Your task to perform on an android device: check out phone information Image 0: 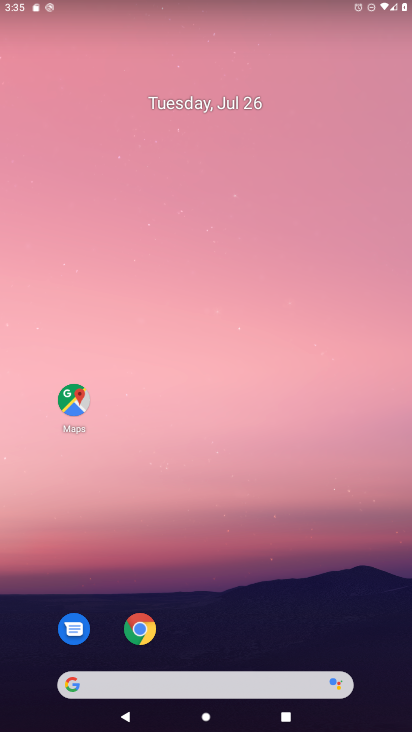
Step 0: drag from (204, 604) to (175, 217)
Your task to perform on an android device: check out phone information Image 1: 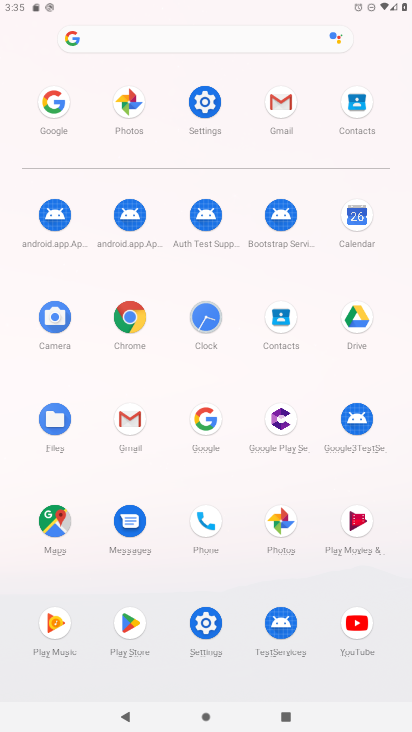
Step 1: click (199, 118)
Your task to perform on an android device: check out phone information Image 2: 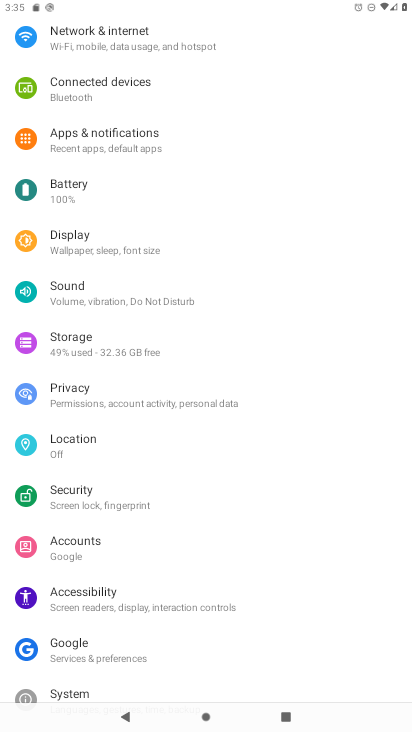
Step 2: drag from (185, 589) to (151, 216)
Your task to perform on an android device: check out phone information Image 3: 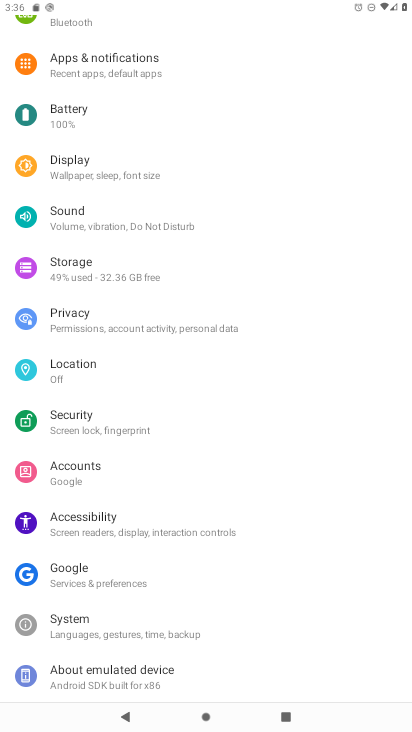
Step 3: click (113, 657)
Your task to perform on an android device: check out phone information Image 4: 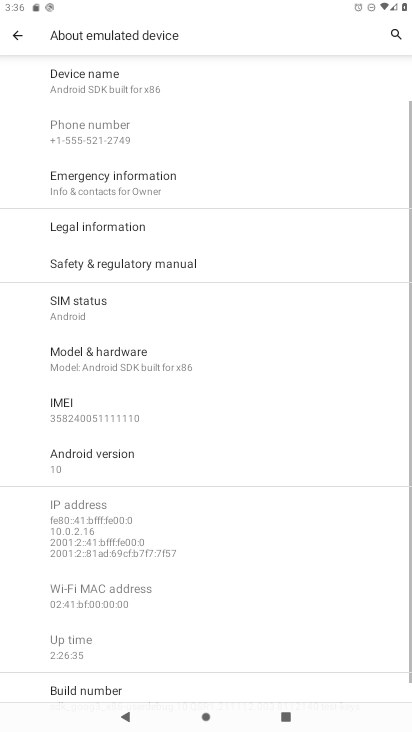
Step 4: task complete